Your task to perform on an android device: Search for the best rated headphones on amazon.com Image 0: 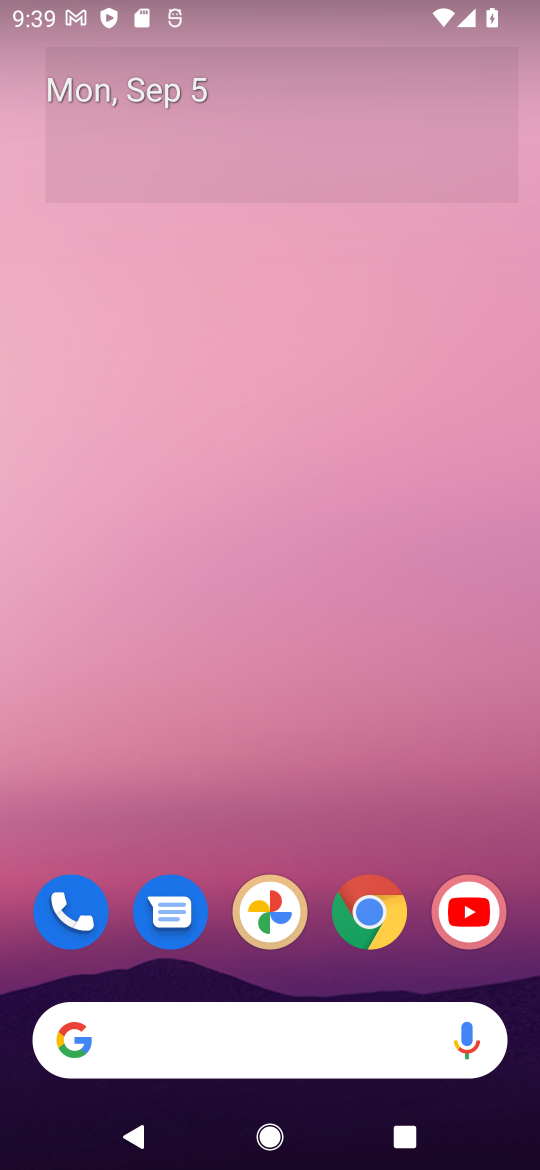
Step 0: click (373, 921)
Your task to perform on an android device: Search for the best rated headphones on amazon.com Image 1: 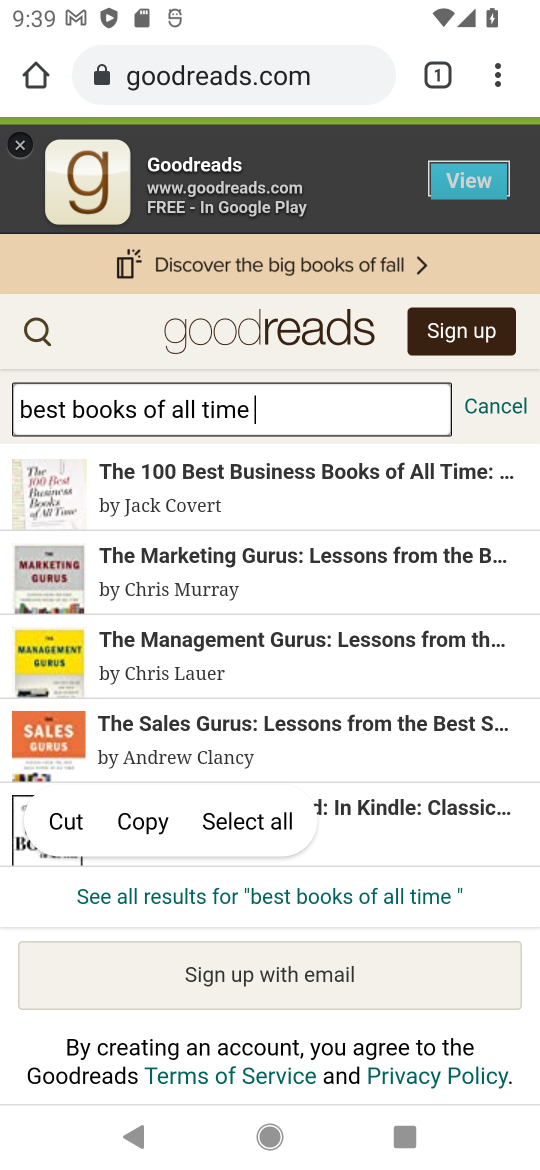
Step 1: click (227, 92)
Your task to perform on an android device: Search for the best rated headphones on amazon.com Image 2: 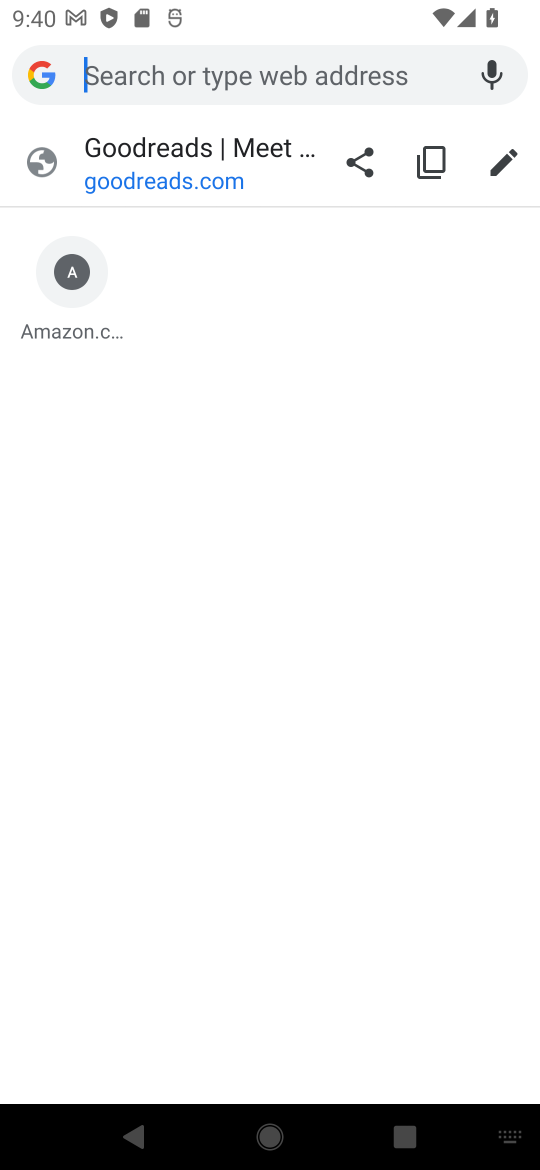
Step 2: type "amazon.com"
Your task to perform on an android device: Search for the best rated headphones on amazon.com Image 3: 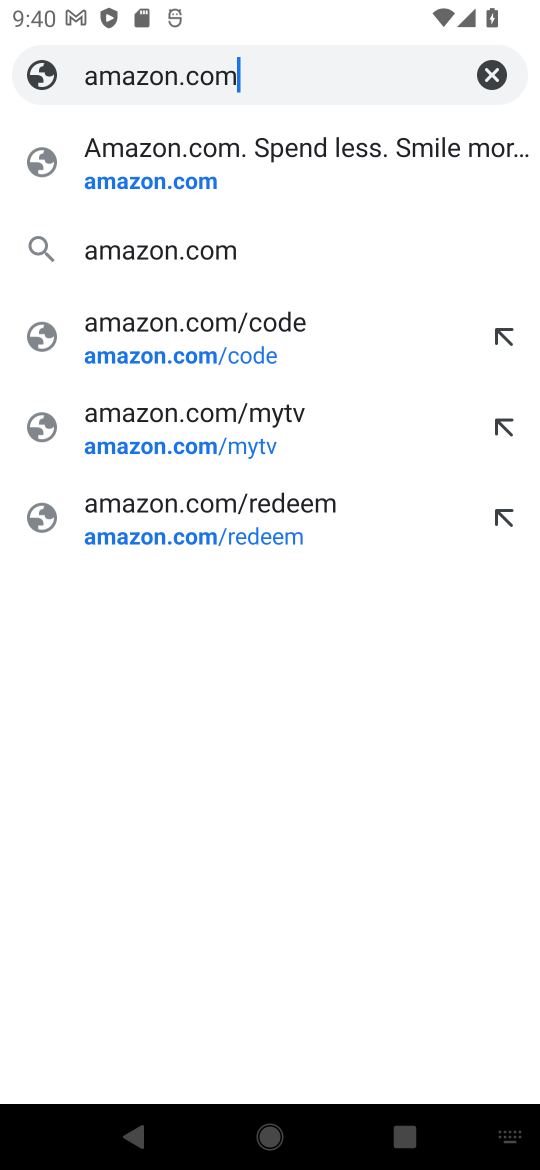
Step 3: click (139, 255)
Your task to perform on an android device: Search for the best rated headphones on amazon.com Image 4: 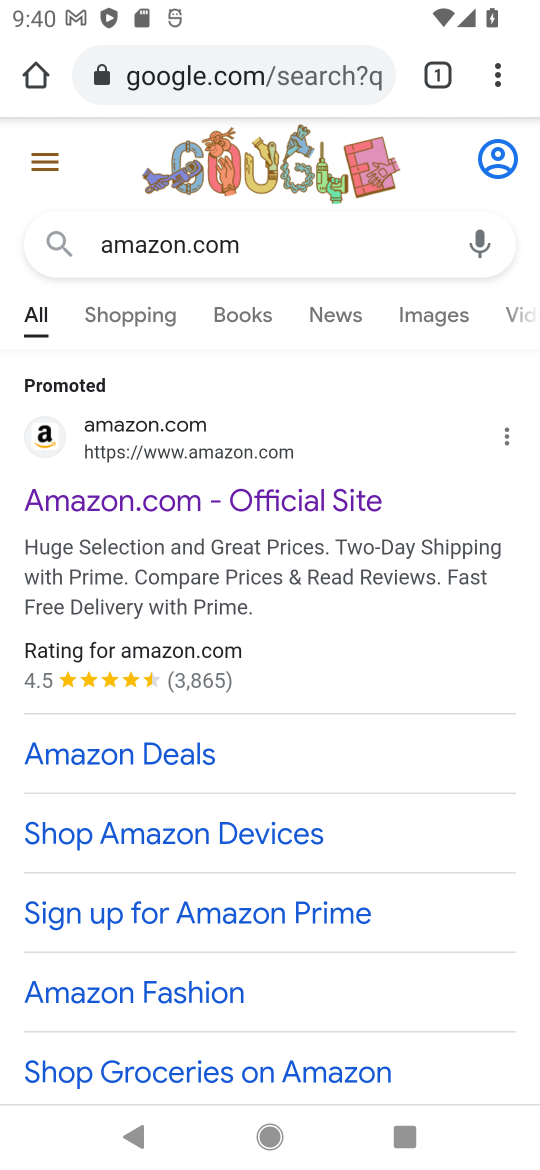
Step 4: click (102, 496)
Your task to perform on an android device: Search for the best rated headphones on amazon.com Image 5: 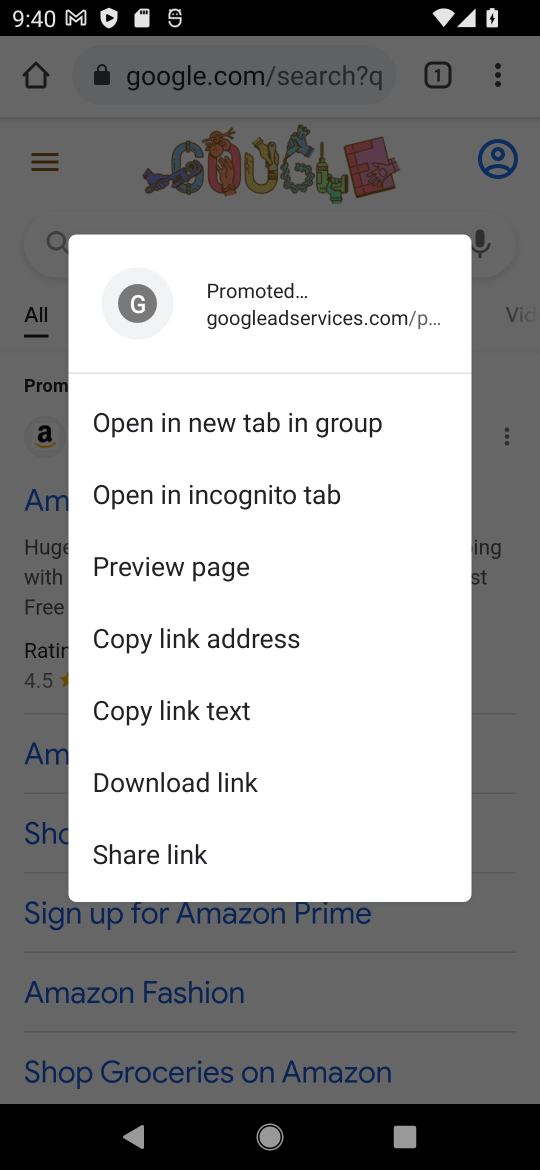
Step 5: click (34, 514)
Your task to perform on an android device: Search for the best rated headphones on amazon.com Image 6: 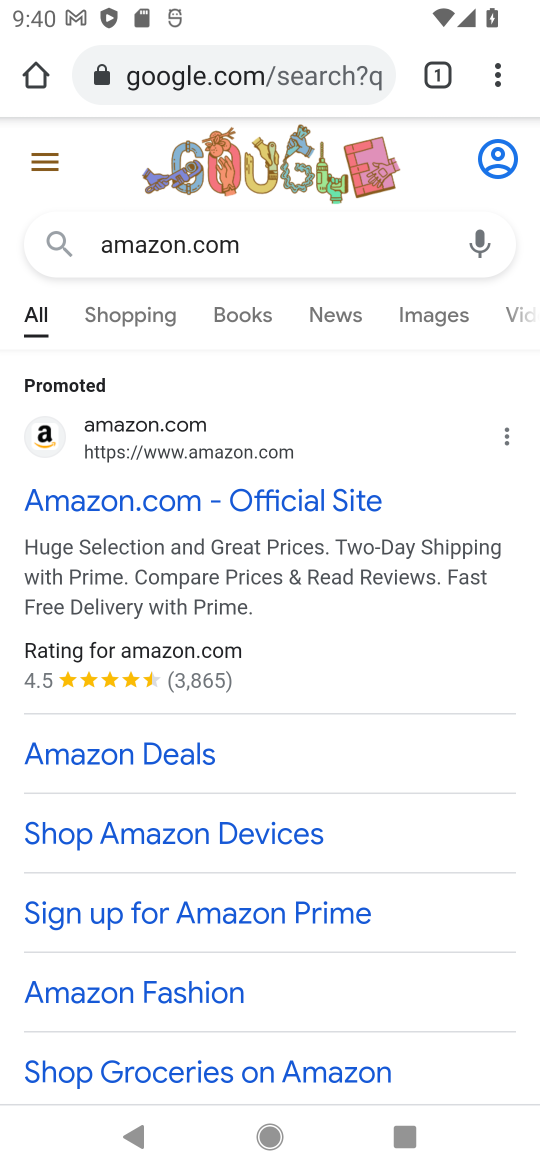
Step 6: click (295, 498)
Your task to perform on an android device: Search for the best rated headphones on amazon.com Image 7: 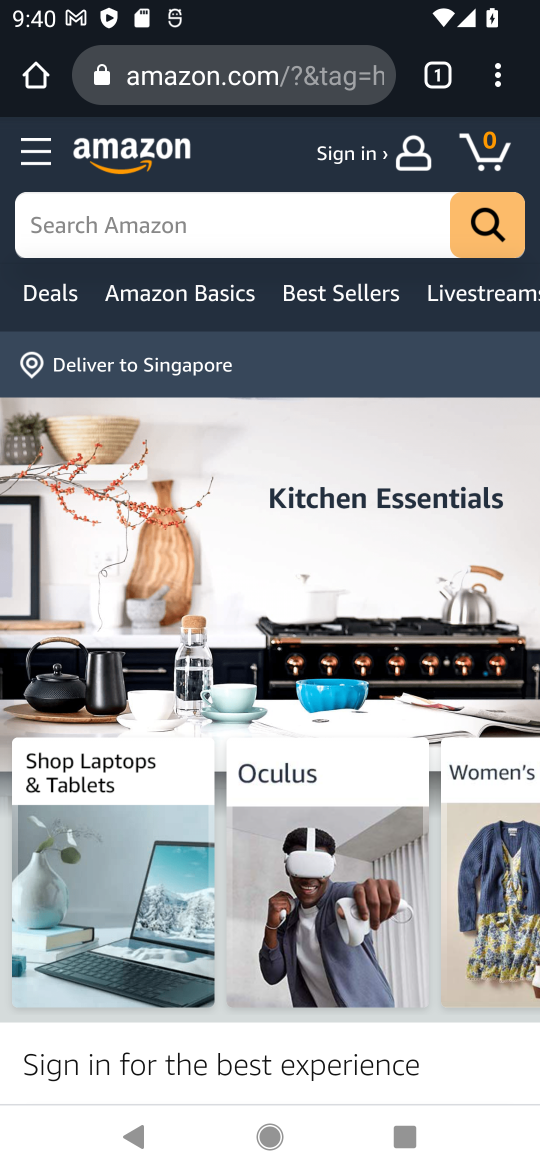
Step 7: click (110, 212)
Your task to perform on an android device: Search for the best rated headphones on amazon.com Image 8: 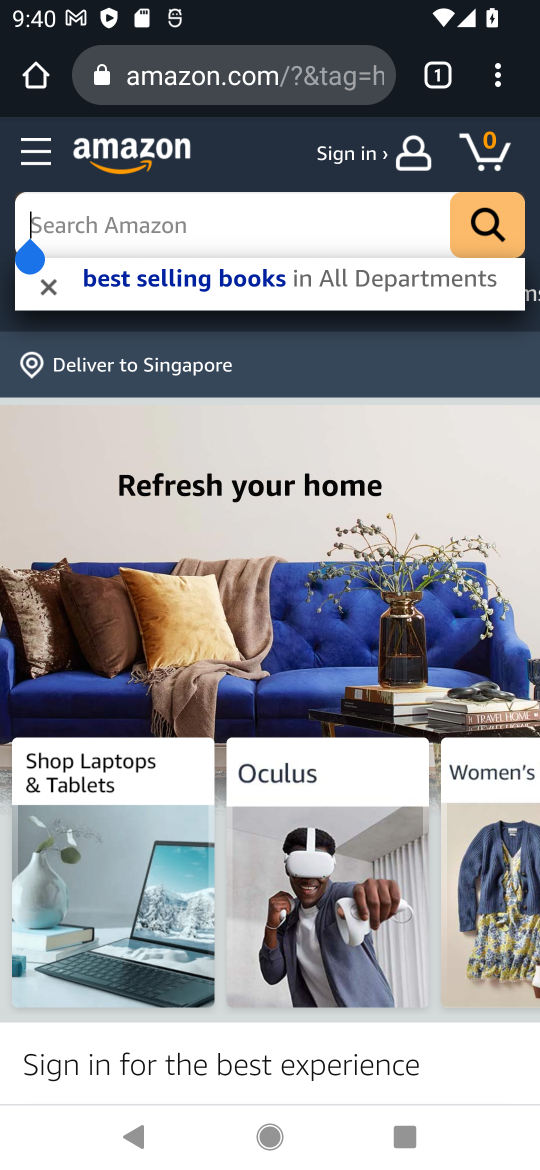
Step 8: type "best rated headphones"
Your task to perform on an android device: Search for the best rated headphones on amazon.com Image 9: 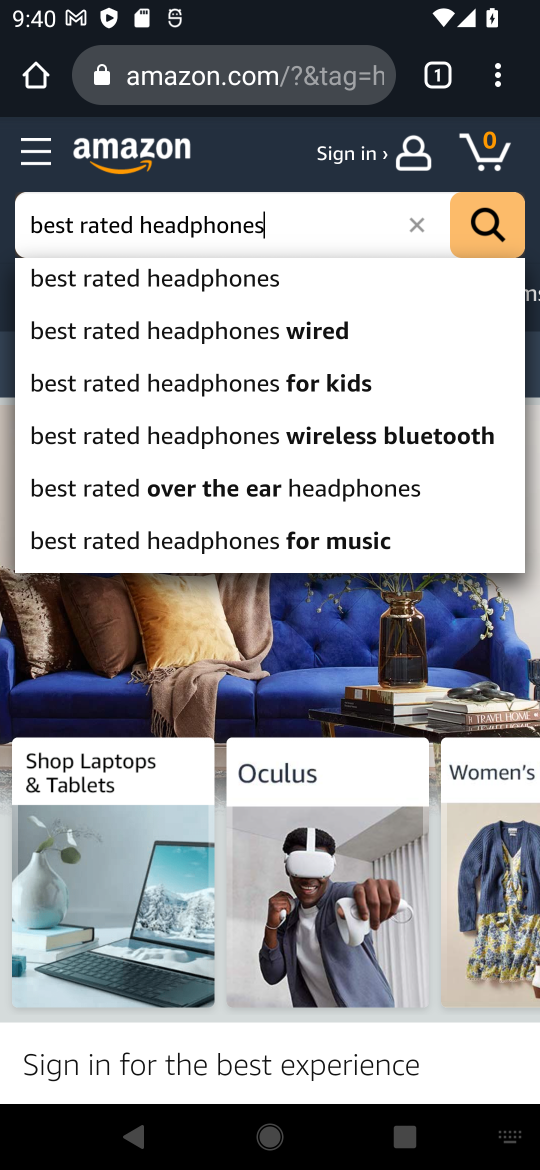
Step 9: click (141, 283)
Your task to perform on an android device: Search for the best rated headphones on amazon.com Image 10: 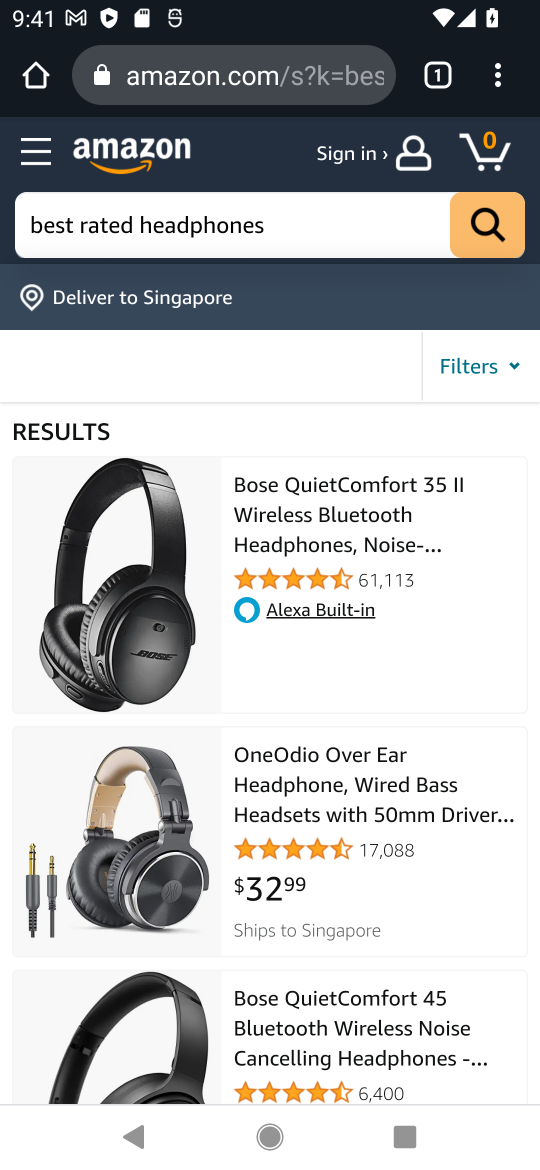
Step 10: task complete